Your task to perform on an android device: turn on priority inbox in the gmail app Image 0: 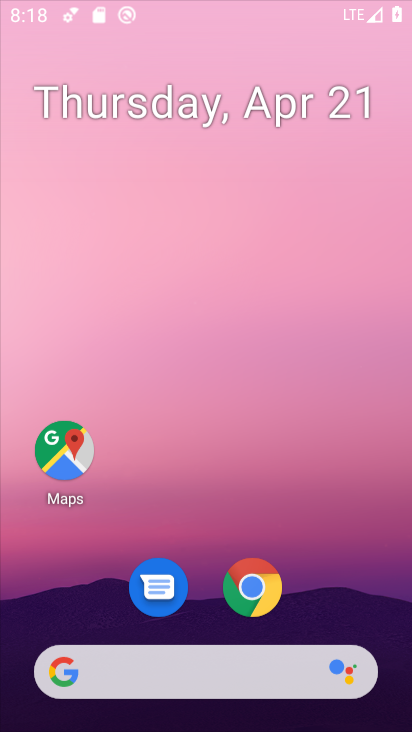
Step 0: click (378, 238)
Your task to perform on an android device: turn on priority inbox in the gmail app Image 1: 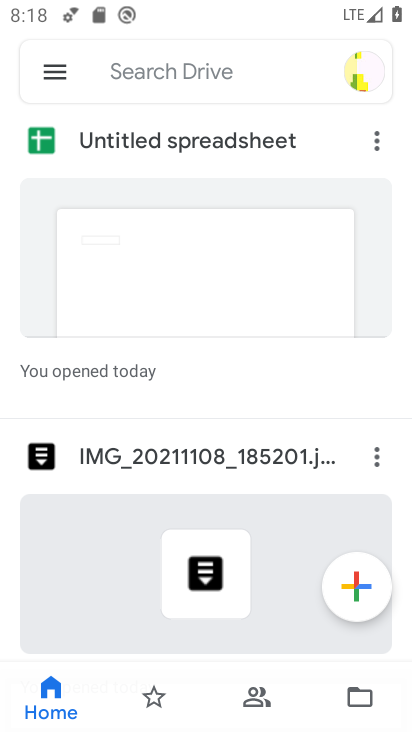
Step 1: press home button
Your task to perform on an android device: turn on priority inbox in the gmail app Image 2: 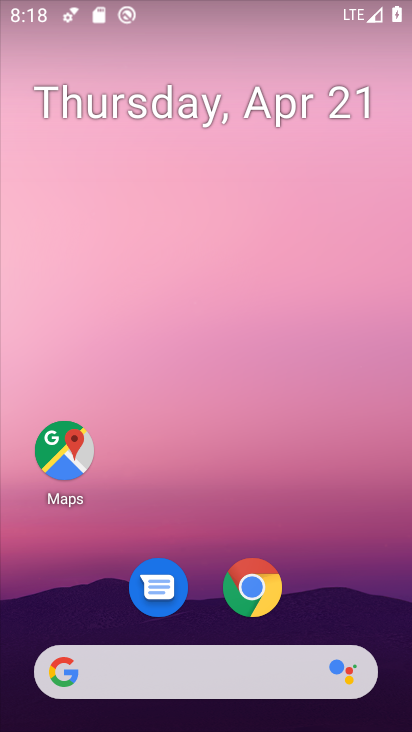
Step 2: drag from (370, 465) to (342, 90)
Your task to perform on an android device: turn on priority inbox in the gmail app Image 3: 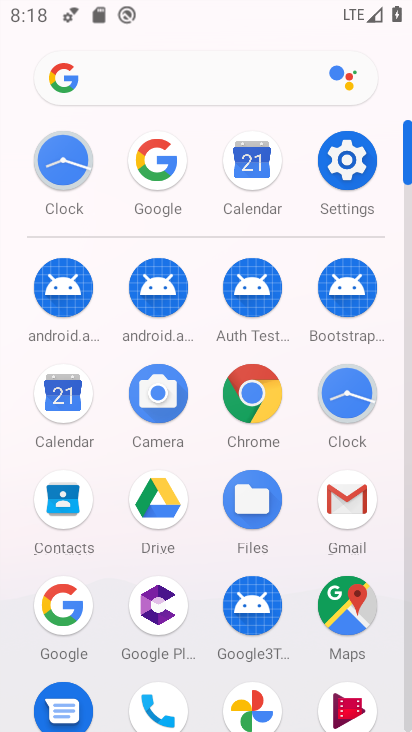
Step 3: click (344, 494)
Your task to perform on an android device: turn on priority inbox in the gmail app Image 4: 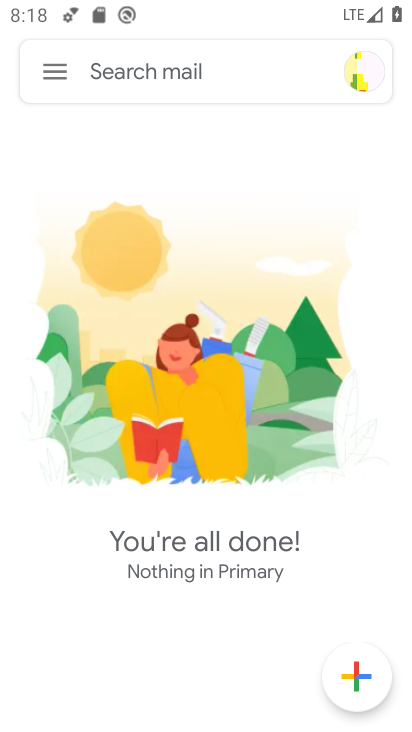
Step 4: click (56, 56)
Your task to perform on an android device: turn on priority inbox in the gmail app Image 5: 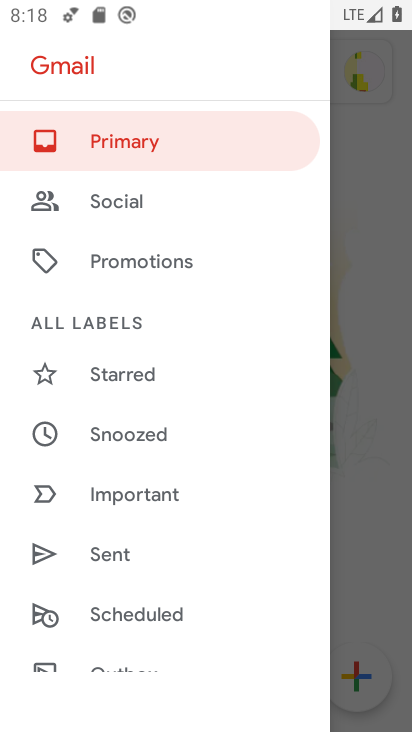
Step 5: drag from (281, 324) to (281, 258)
Your task to perform on an android device: turn on priority inbox in the gmail app Image 6: 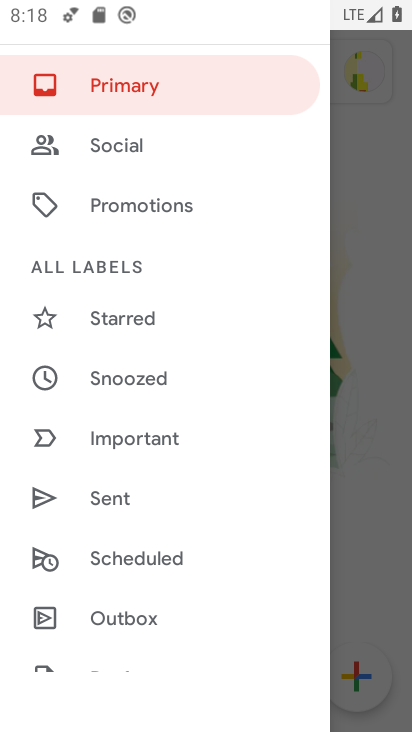
Step 6: drag from (277, 419) to (281, 371)
Your task to perform on an android device: turn on priority inbox in the gmail app Image 7: 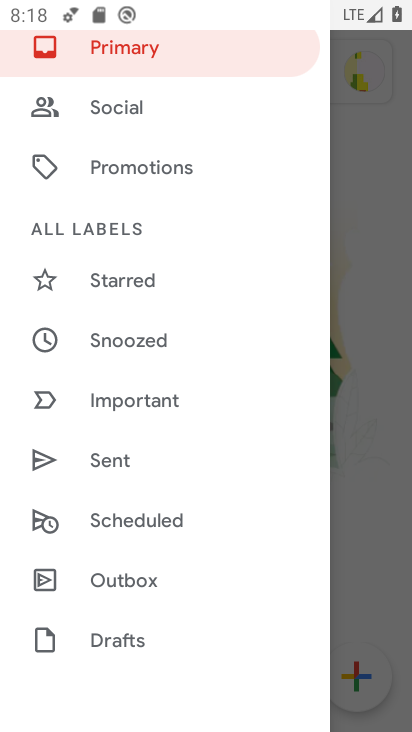
Step 7: drag from (259, 390) to (259, 320)
Your task to perform on an android device: turn on priority inbox in the gmail app Image 8: 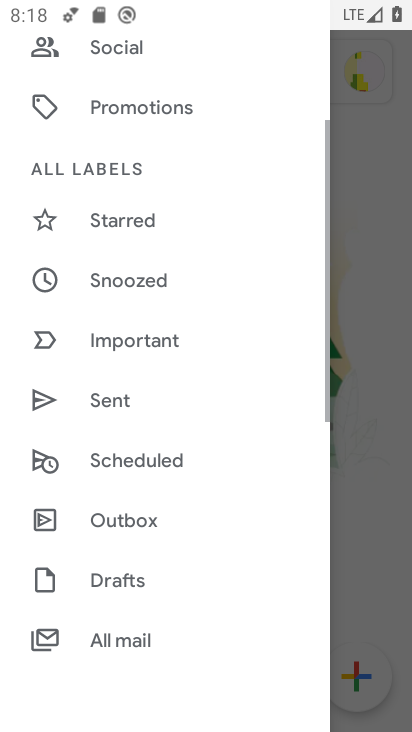
Step 8: click (262, 250)
Your task to perform on an android device: turn on priority inbox in the gmail app Image 9: 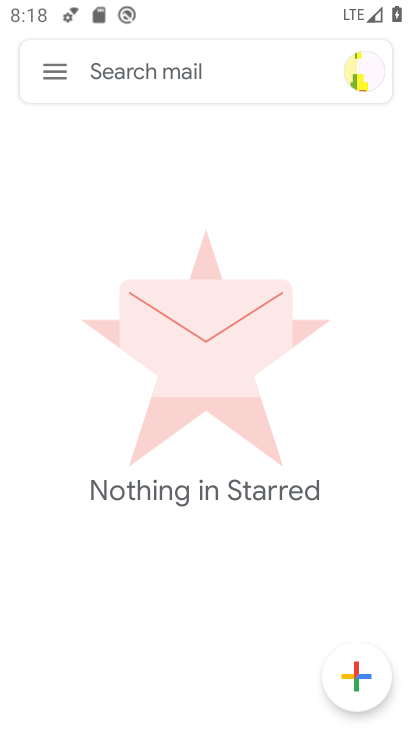
Step 9: press back button
Your task to perform on an android device: turn on priority inbox in the gmail app Image 10: 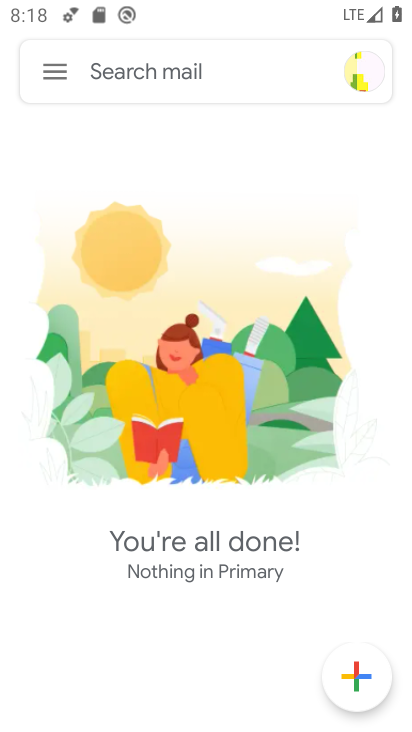
Step 10: click (55, 68)
Your task to perform on an android device: turn on priority inbox in the gmail app Image 11: 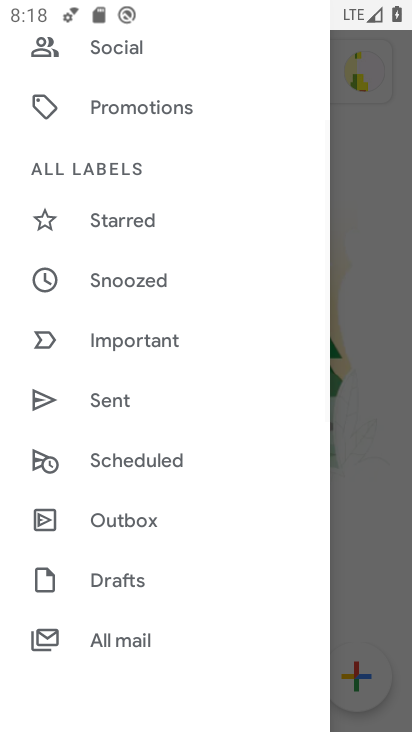
Step 11: drag from (265, 308) to (255, 185)
Your task to perform on an android device: turn on priority inbox in the gmail app Image 12: 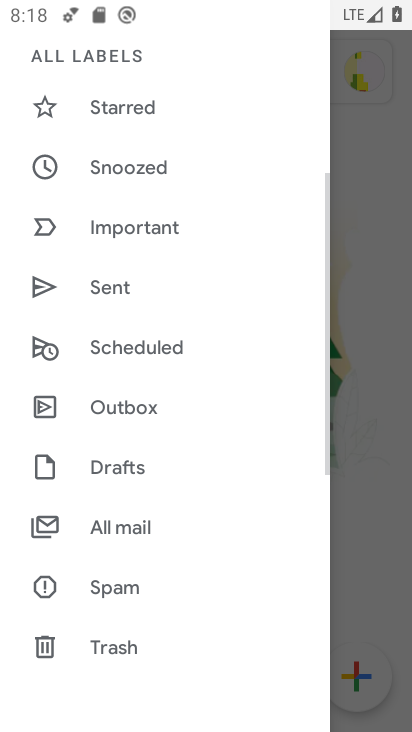
Step 12: drag from (280, 583) to (269, 191)
Your task to perform on an android device: turn on priority inbox in the gmail app Image 13: 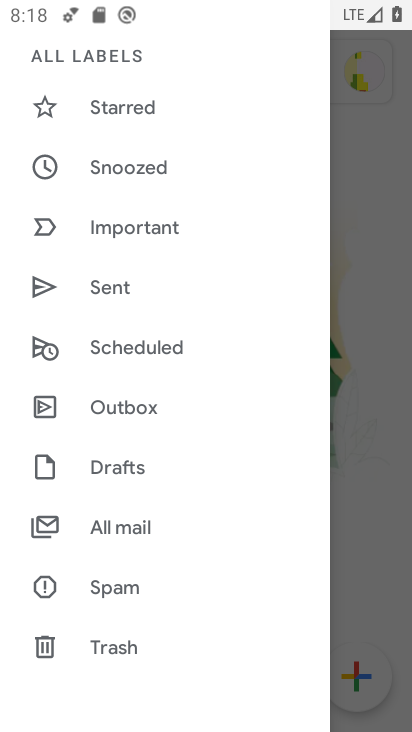
Step 13: drag from (291, 508) to (301, 302)
Your task to perform on an android device: turn on priority inbox in the gmail app Image 14: 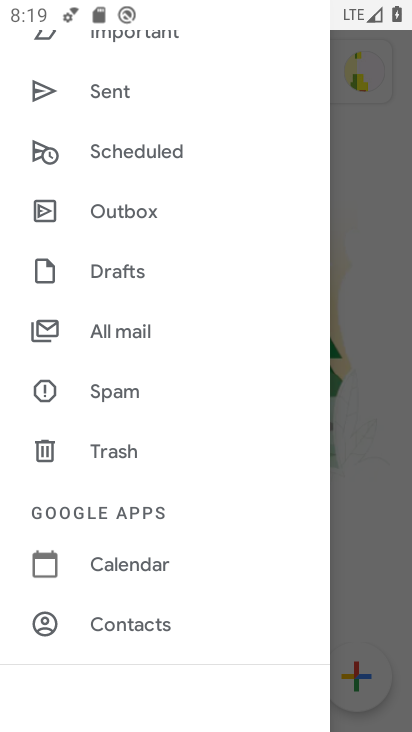
Step 14: drag from (282, 446) to (274, 223)
Your task to perform on an android device: turn on priority inbox in the gmail app Image 15: 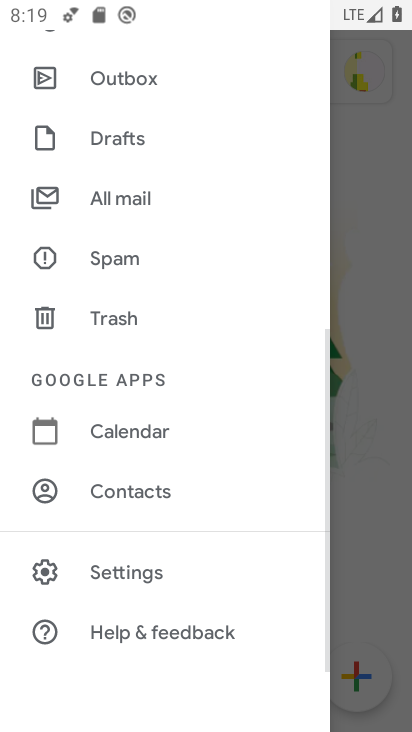
Step 15: click (113, 566)
Your task to perform on an android device: turn on priority inbox in the gmail app Image 16: 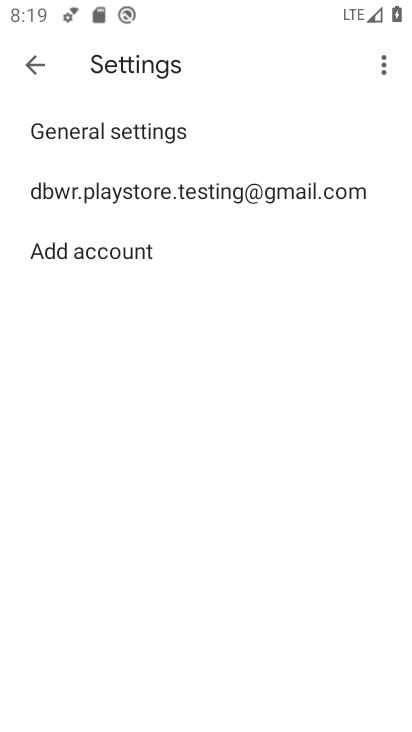
Step 16: click (105, 192)
Your task to perform on an android device: turn on priority inbox in the gmail app Image 17: 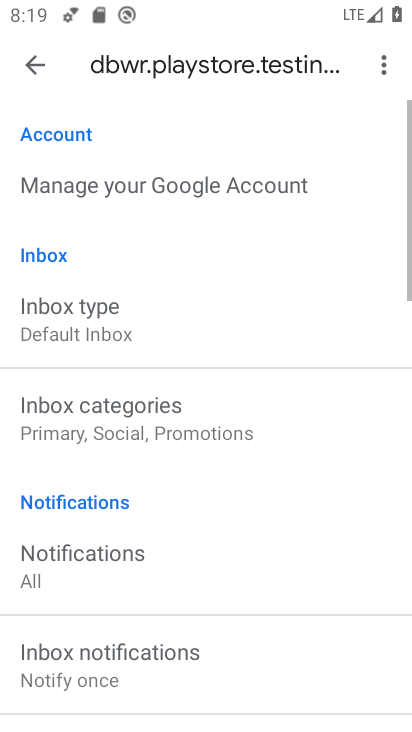
Step 17: click (91, 325)
Your task to perform on an android device: turn on priority inbox in the gmail app Image 18: 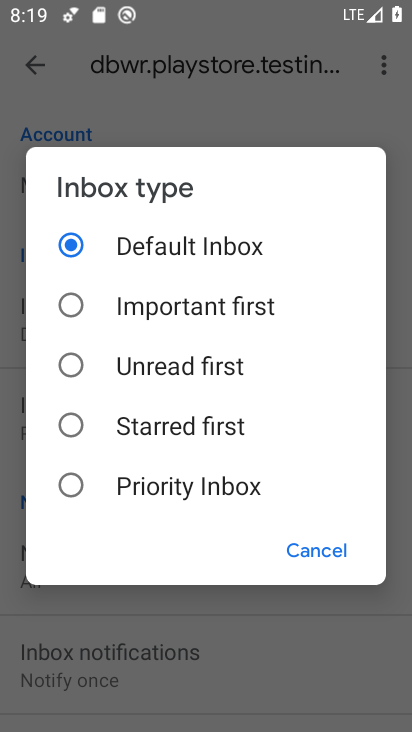
Step 18: click (73, 476)
Your task to perform on an android device: turn on priority inbox in the gmail app Image 19: 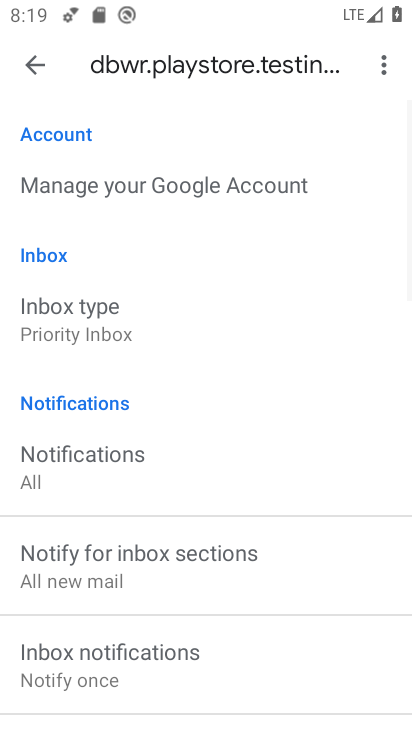
Step 19: task complete